Your task to perform on an android device: Toggle the flashlight Image 0: 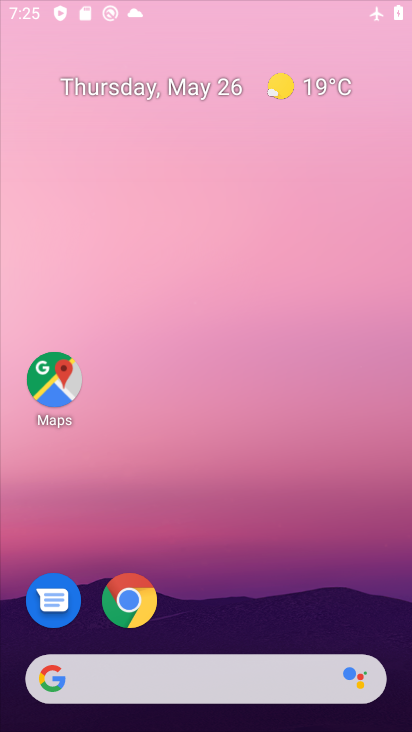
Step 0: press home button
Your task to perform on an android device: Toggle the flashlight Image 1: 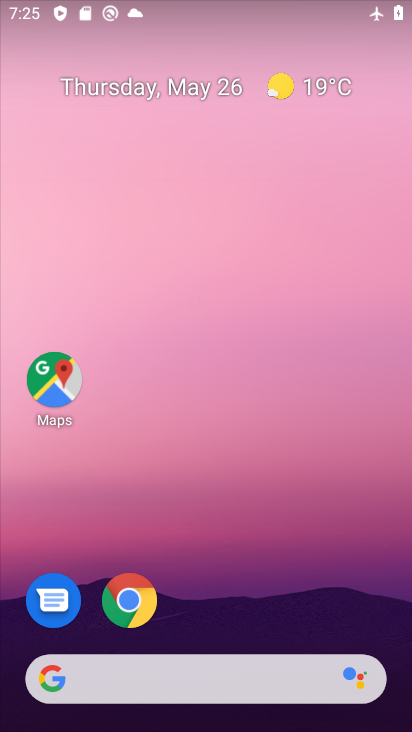
Step 1: task complete